Your task to perform on an android device: turn on notifications settings in the gmail app Image 0: 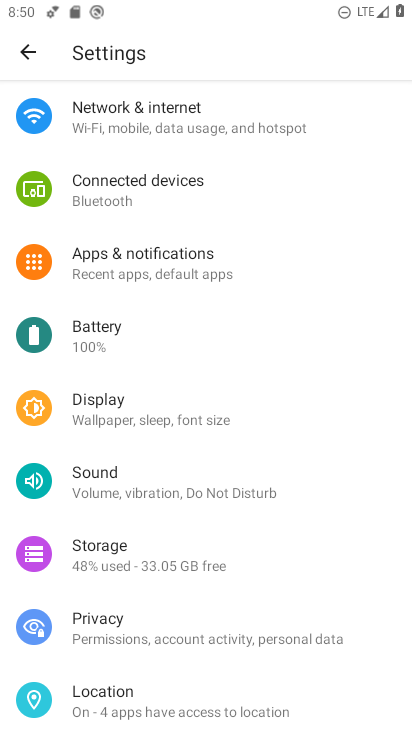
Step 0: click (171, 282)
Your task to perform on an android device: turn on notifications settings in the gmail app Image 1: 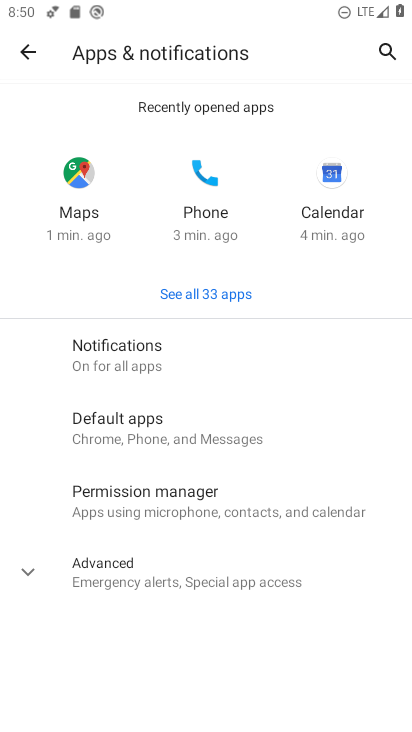
Step 1: click (119, 365)
Your task to perform on an android device: turn on notifications settings in the gmail app Image 2: 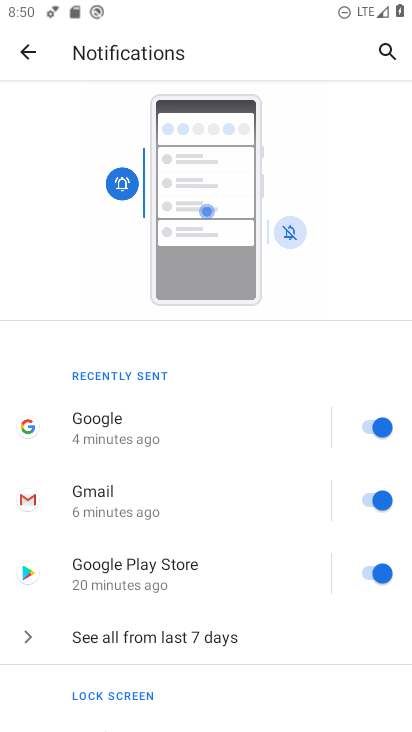
Step 2: drag from (182, 541) to (238, 303)
Your task to perform on an android device: turn on notifications settings in the gmail app Image 3: 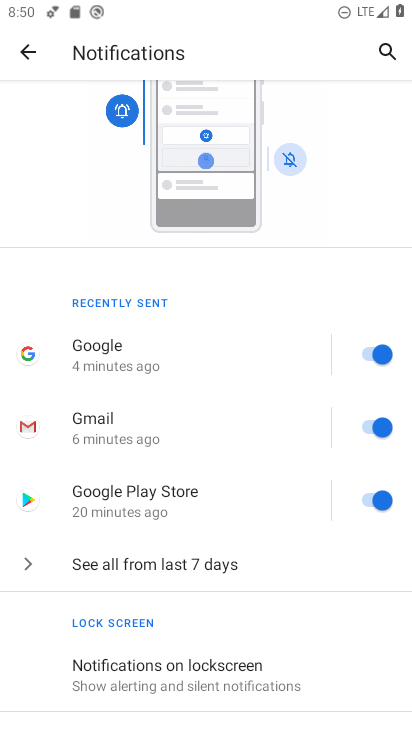
Step 3: drag from (175, 600) to (229, 287)
Your task to perform on an android device: turn on notifications settings in the gmail app Image 4: 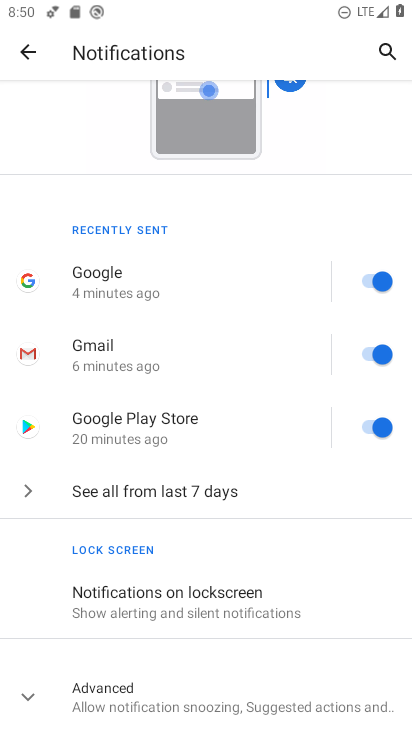
Step 4: press home button
Your task to perform on an android device: turn on notifications settings in the gmail app Image 5: 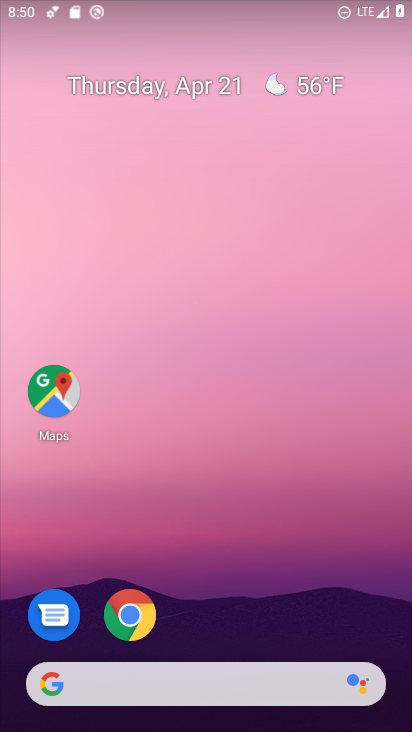
Step 5: drag from (298, 358) to (300, 100)
Your task to perform on an android device: turn on notifications settings in the gmail app Image 6: 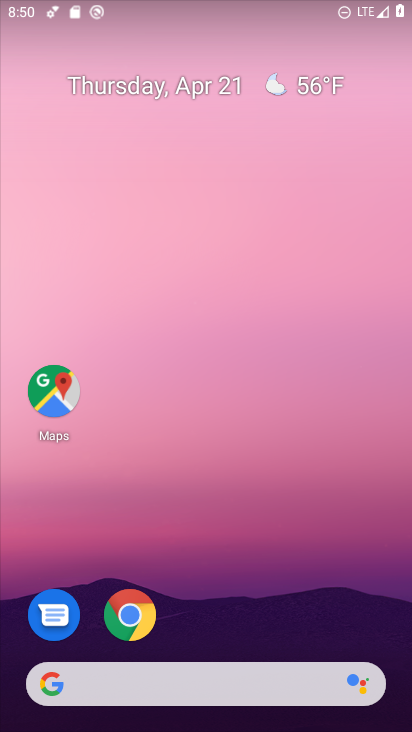
Step 6: drag from (288, 391) to (289, 97)
Your task to perform on an android device: turn on notifications settings in the gmail app Image 7: 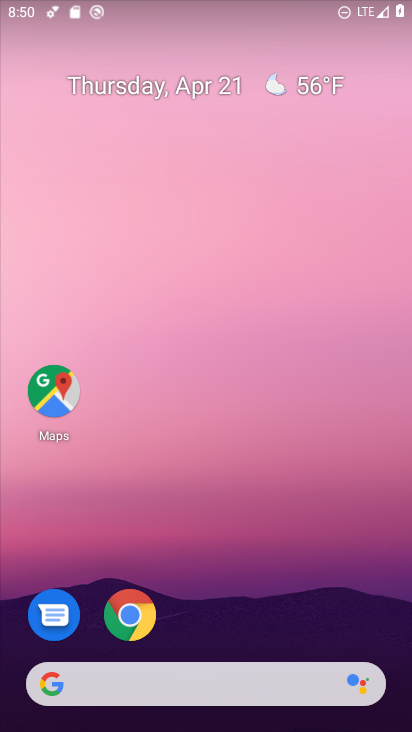
Step 7: drag from (286, 586) to (347, 81)
Your task to perform on an android device: turn on notifications settings in the gmail app Image 8: 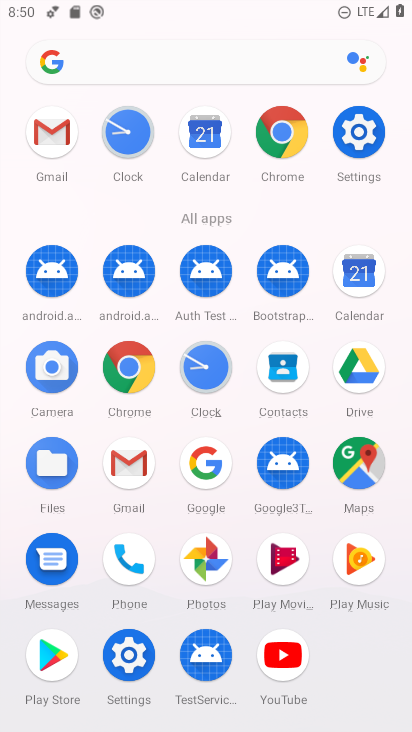
Step 8: click (42, 138)
Your task to perform on an android device: turn on notifications settings in the gmail app Image 9: 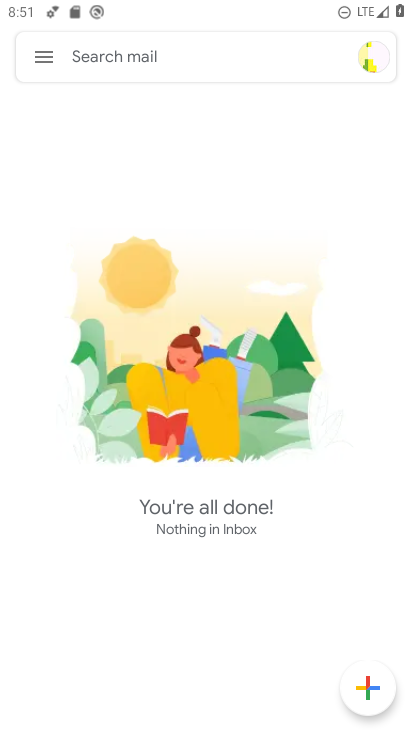
Step 9: click (47, 38)
Your task to perform on an android device: turn on notifications settings in the gmail app Image 10: 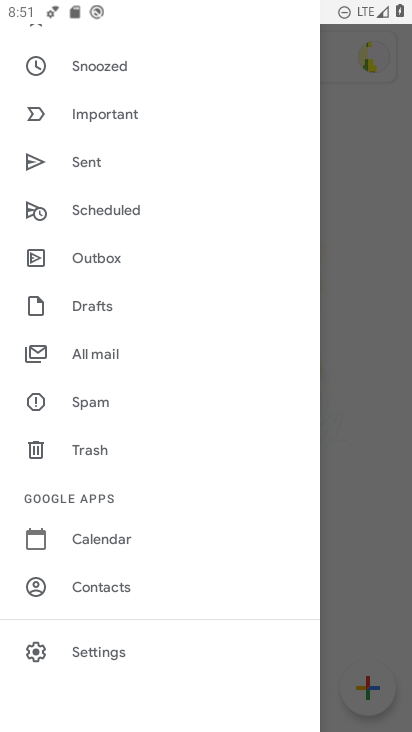
Step 10: click (103, 658)
Your task to perform on an android device: turn on notifications settings in the gmail app Image 11: 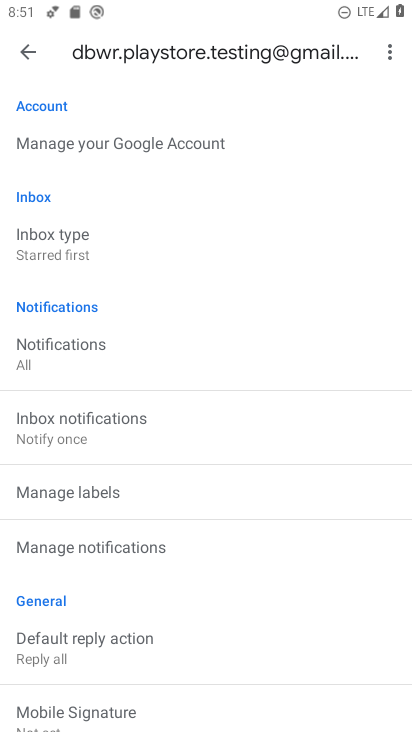
Step 11: click (50, 348)
Your task to perform on an android device: turn on notifications settings in the gmail app Image 12: 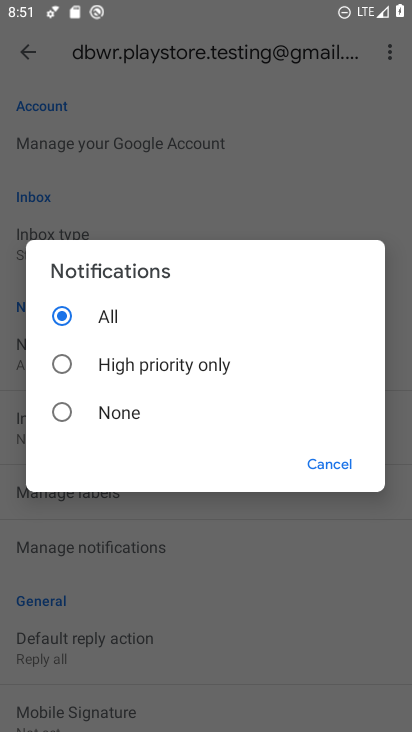
Step 12: task complete